Your task to perform on an android device: choose inbox layout in the gmail app Image 0: 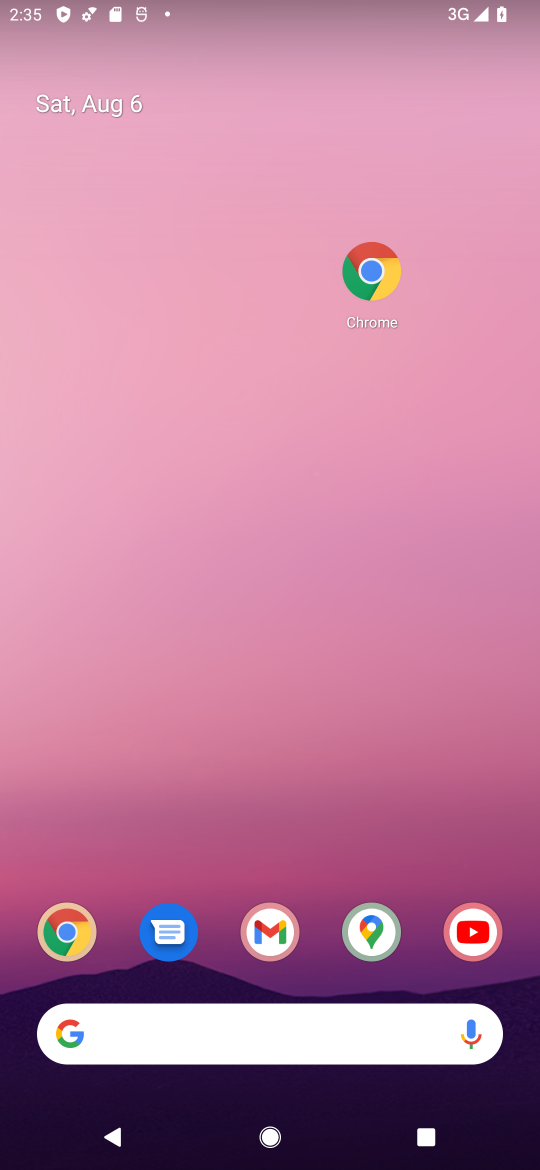
Step 0: drag from (335, 873) to (347, 59)
Your task to perform on an android device: choose inbox layout in the gmail app Image 1: 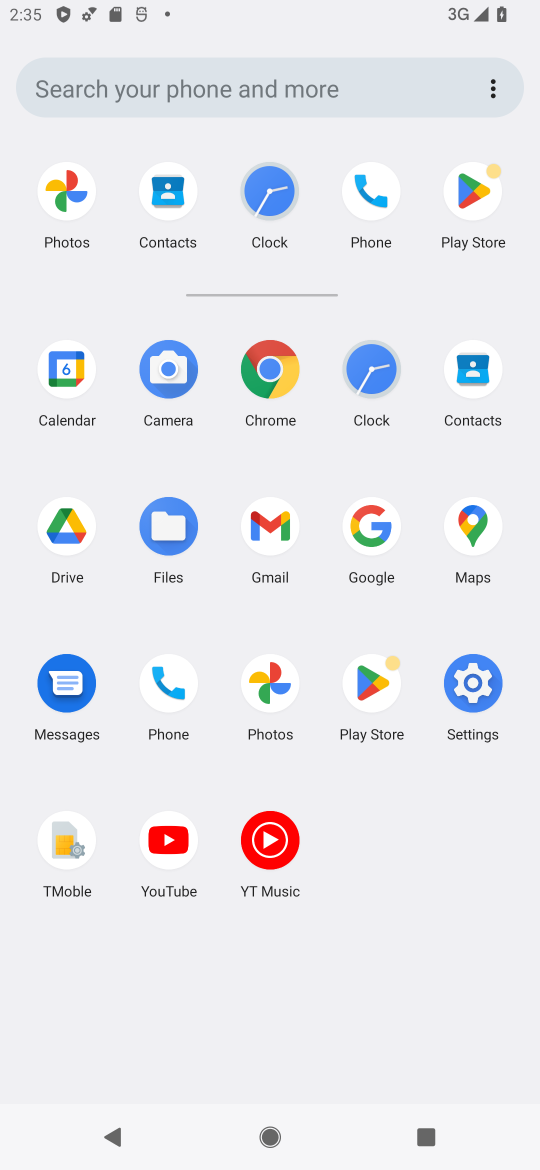
Step 1: click (266, 519)
Your task to perform on an android device: choose inbox layout in the gmail app Image 2: 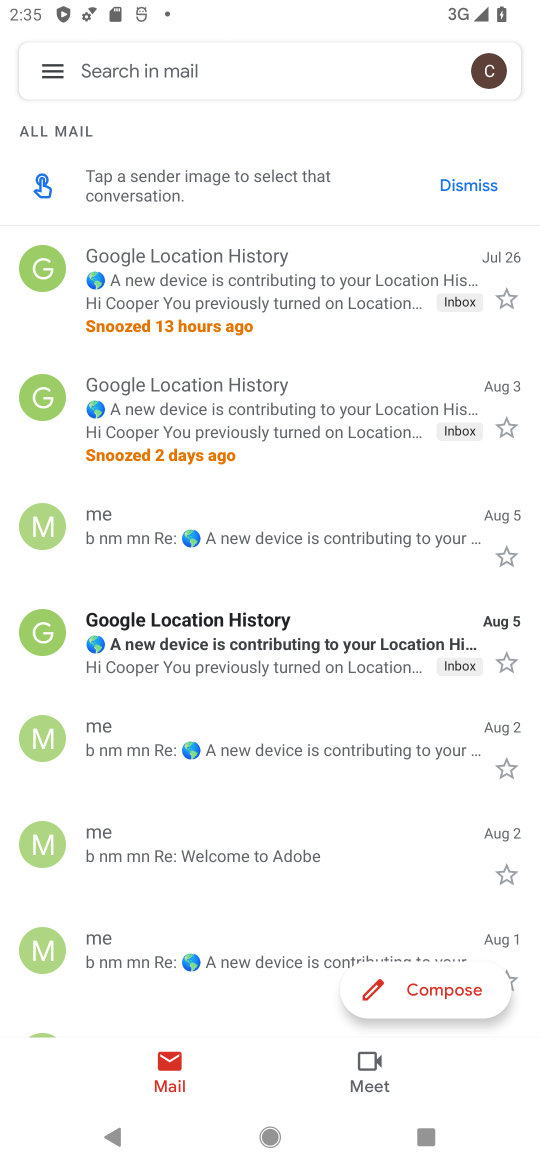
Step 2: click (50, 59)
Your task to perform on an android device: choose inbox layout in the gmail app Image 3: 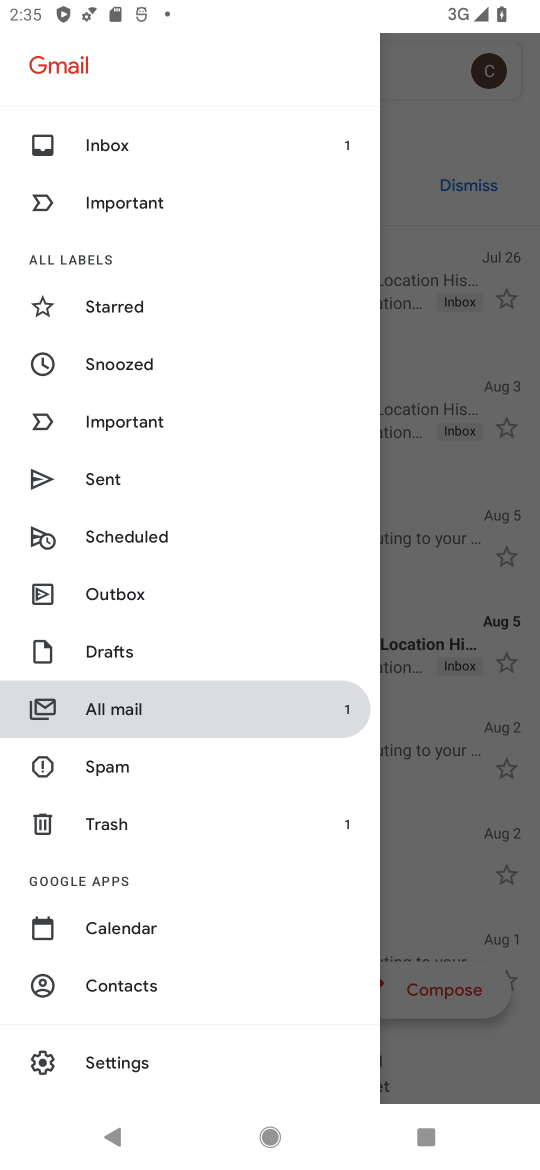
Step 3: drag from (220, 939) to (230, 355)
Your task to perform on an android device: choose inbox layout in the gmail app Image 4: 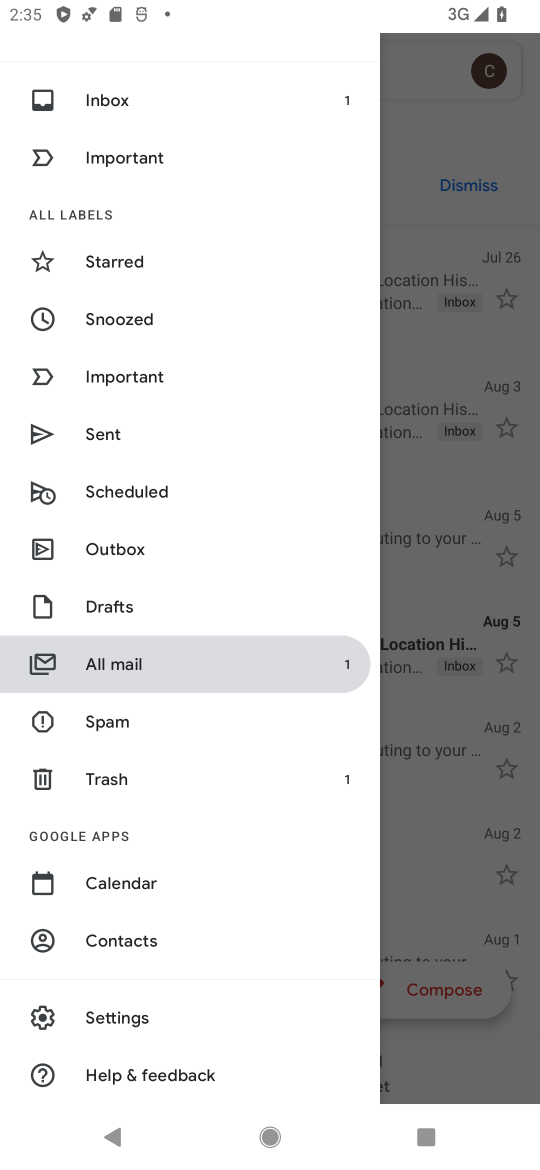
Step 4: click (110, 1012)
Your task to perform on an android device: choose inbox layout in the gmail app Image 5: 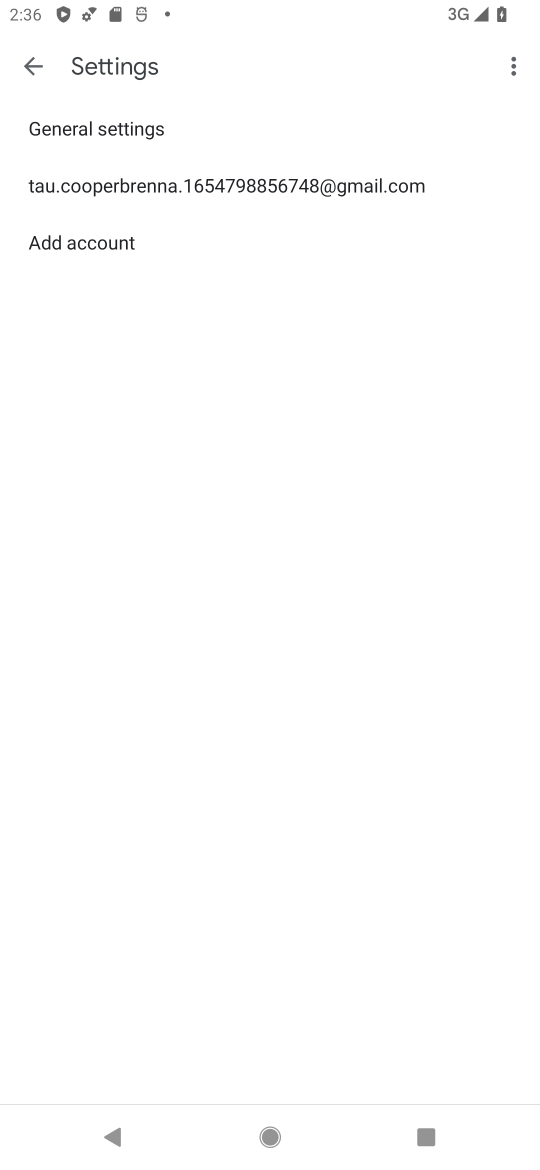
Step 5: click (93, 172)
Your task to perform on an android device: choose inbox layout in the gmail app Image 6: 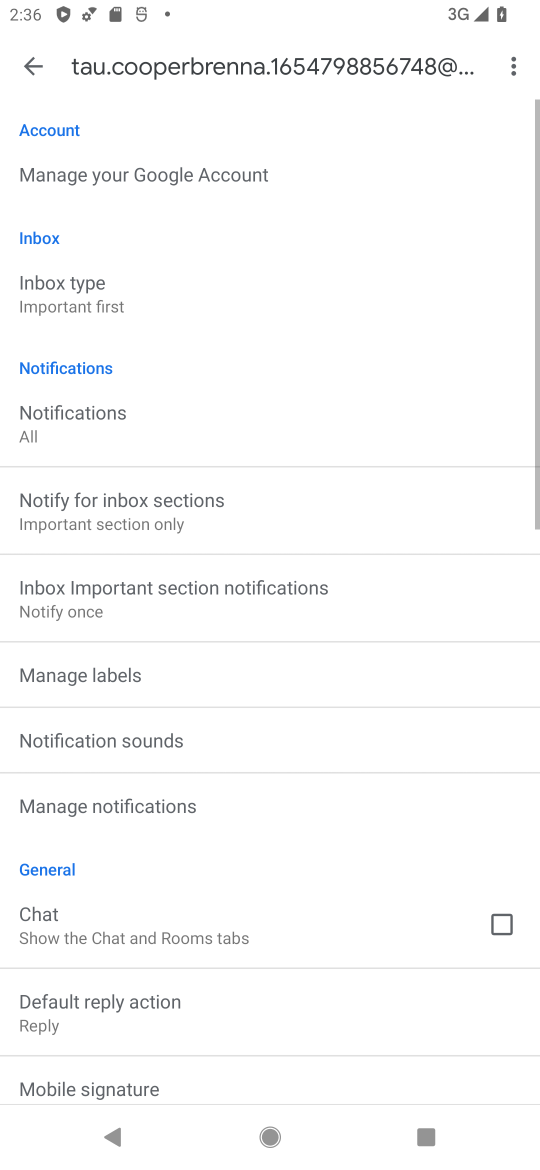
Step 6: click (67, 293)
Your task to perform on an android device: choose inbox layout in the gmail app Image 7: 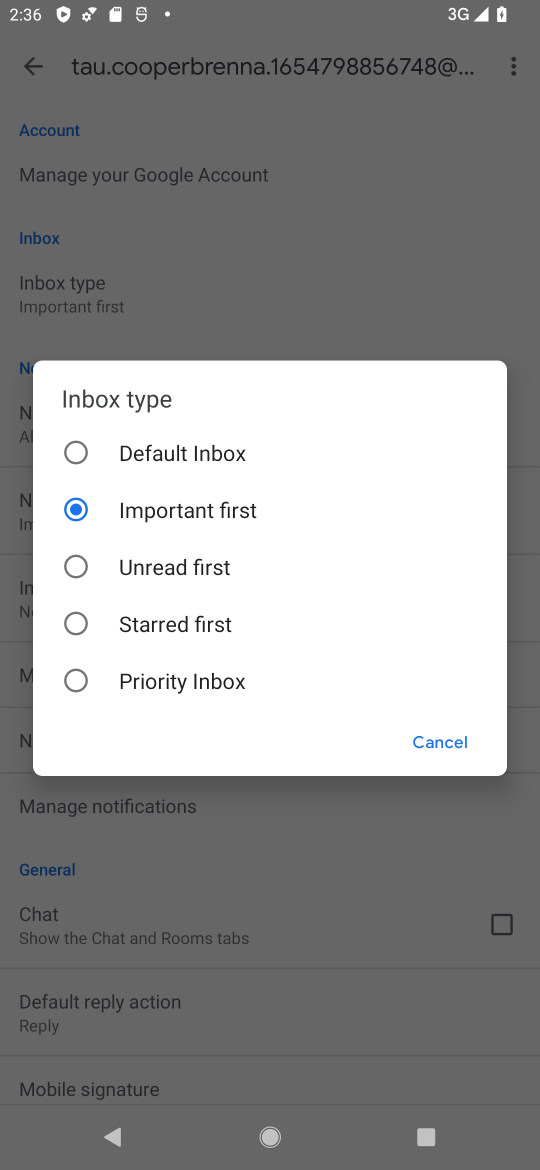
Step 7: click (187, 672)
Your task to perform on an android device: choose inbox layout in the gmail app Image 8: 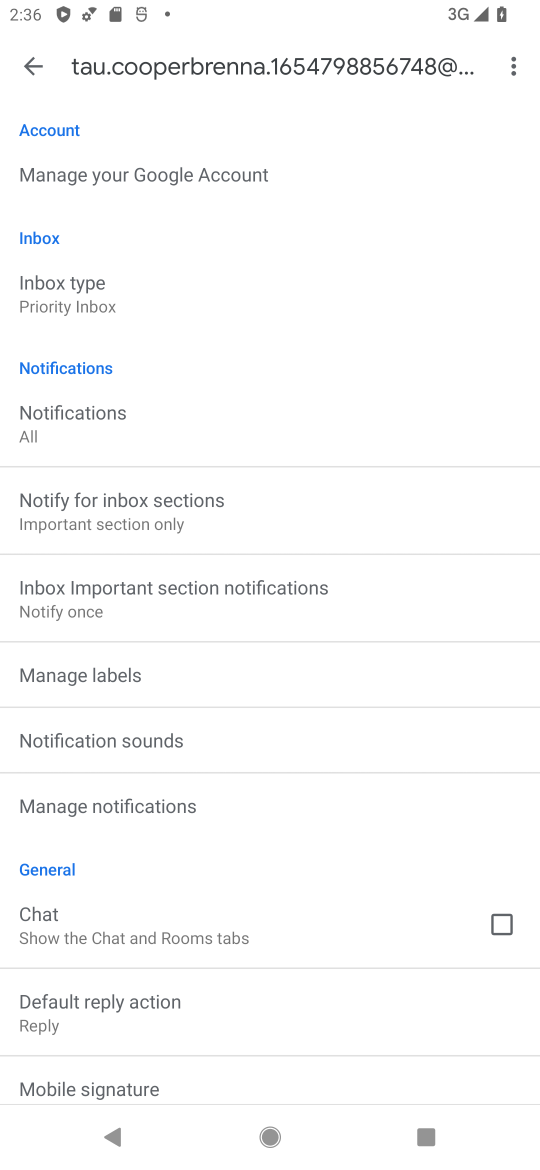
Step 8: task complete